Your task to perform on an android device: read, delete, or share a saved page in the chrome app Image 0: 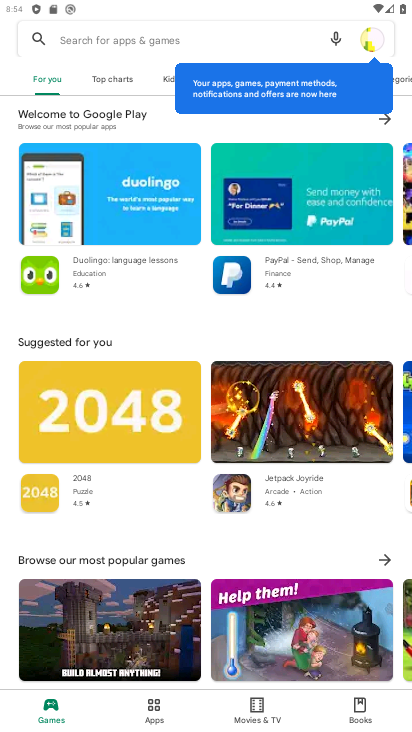
Step 0: press home button
Your task to perform on an android device: read, delete, or share a saved page in the chrome app Image 1: 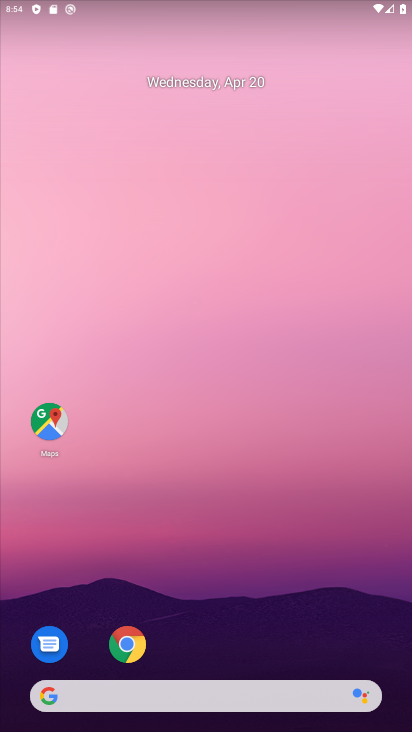
Step 1: click (123, 638)
Your task to perform on an android device: read, delete, or share a saved page in the chrome app Image 2: 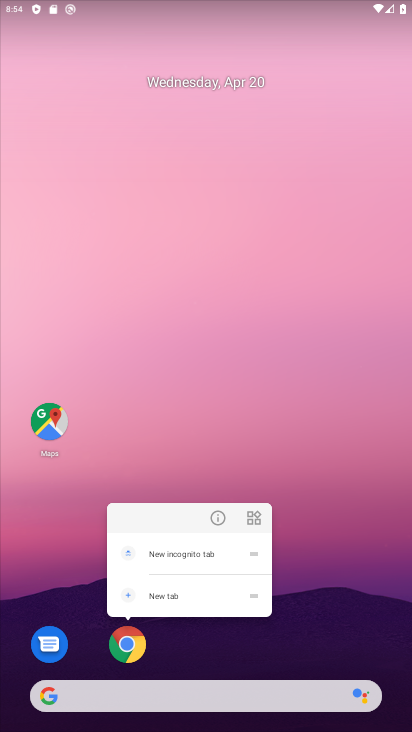
Step 2: click (127, 642)
Your task to perform on an android device: read, delete, or share a saved page in the chrome app Image 3: 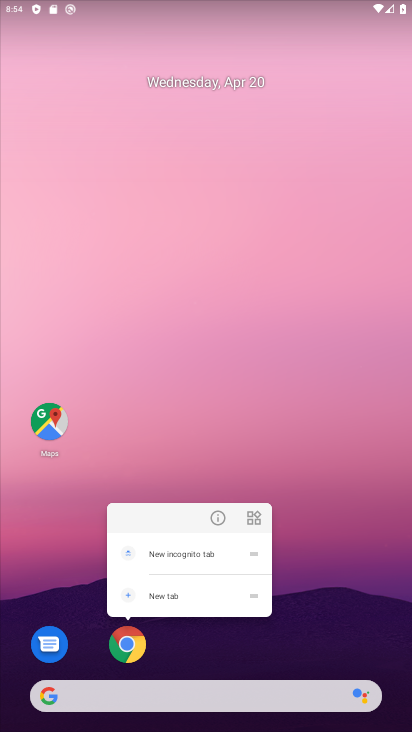
Step 3: click (128, 651)
Your task to perform on an android device: read, delete, or share a saved page in the chrome app Image 4: 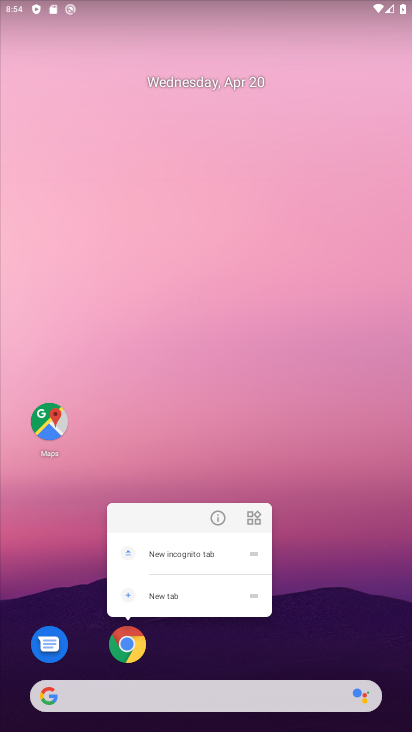
Step 4: click (125, 649)
Your task to perform on an android device: read, delete, or share a saved page in the chrome app Image 5: 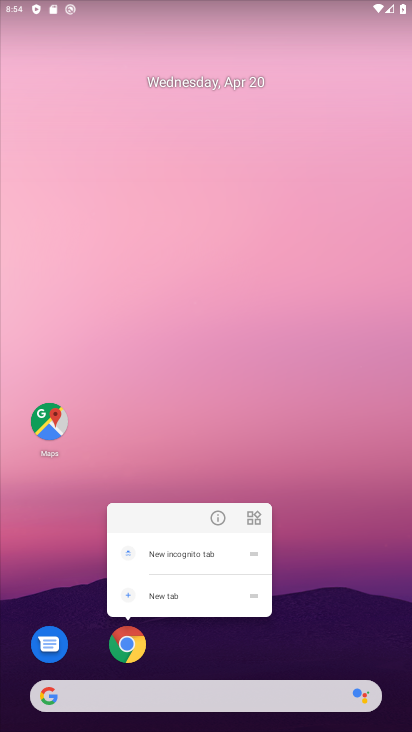
Step 5: click (130, 642)
Your task to perform on an android device: read, delete, or share a saved page in the chrome app Image 6: 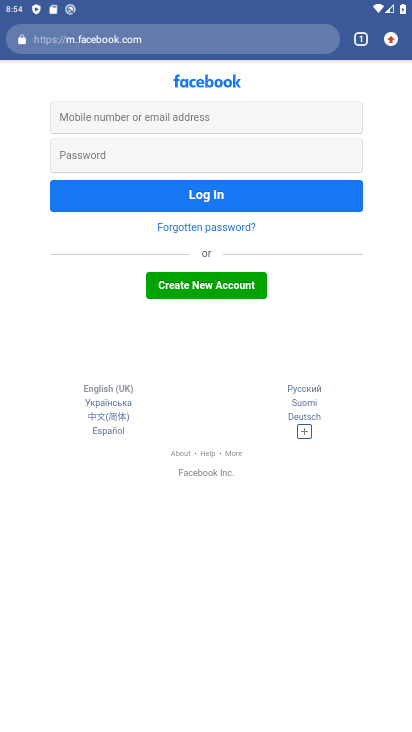
Step 6: click (389, 41)
Your task to perform on an android device: read, delete, or share a saved page in the chrome app Image 7: 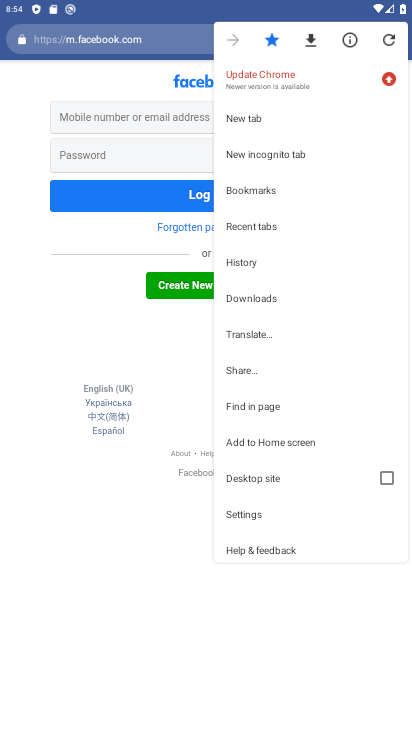
Step 7: click (262, 297)
Your task to perform on an android device: read, delete, or share a saved page in the chrome app Image 8: 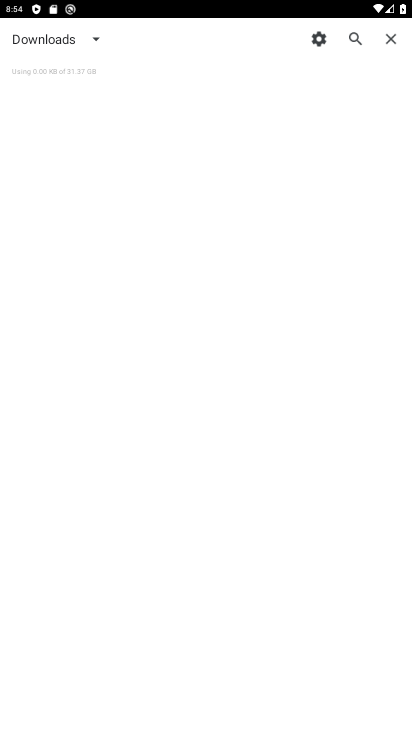
Step 8: click (98, 42)
Your task to perform on an android device: read, delete, or share a saved page in the chrome app Image 9: 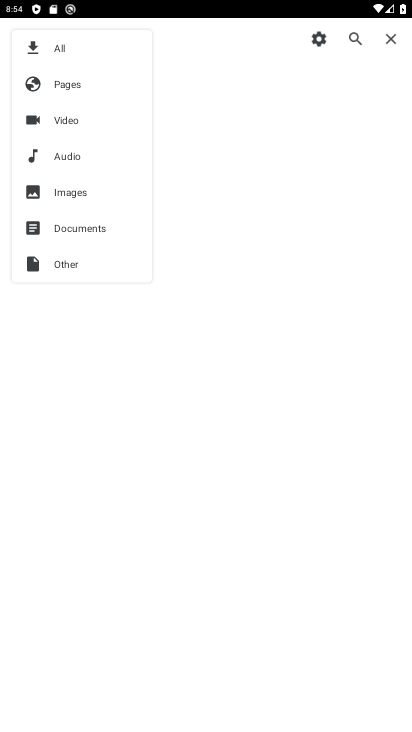
Step 9: click (68, 83)
Your task to perform on an android device: read, delete, or share a saved page in the chrome app Image 10: 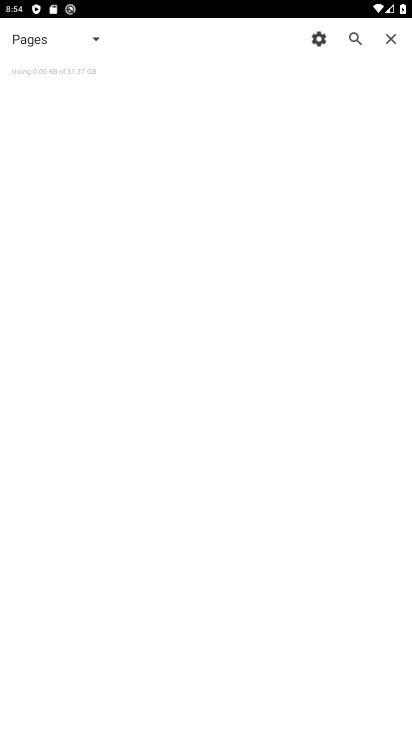
Step 10: task complete